Your task to perform on an android device: Open CNN.com Image 0: 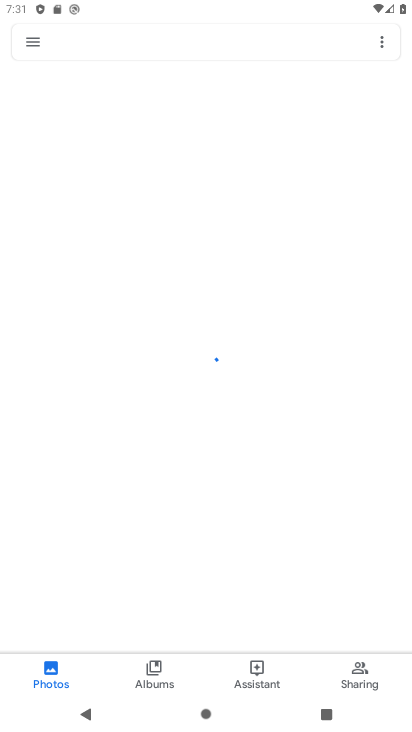
Step 0: press home button
Your task to perform on an android device: Open CNN.com Image 1: 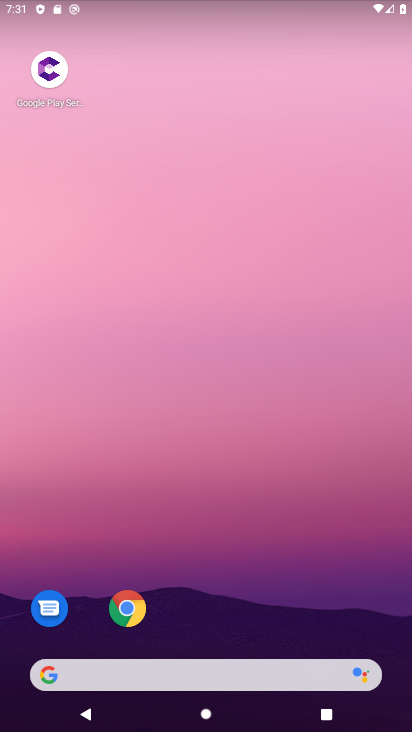
Step 1: click (125, 618)
Your task to perform on an android device: Open CNN.com Image 2: 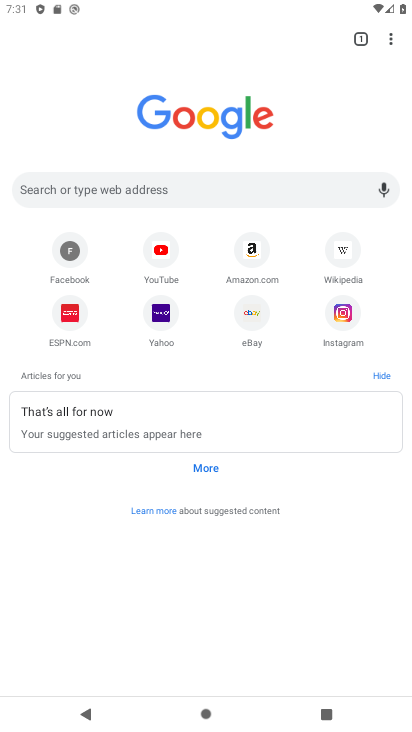
Step 2: click (125, 184)
Your task to perform on an android device: Open CNN.com Image 3: 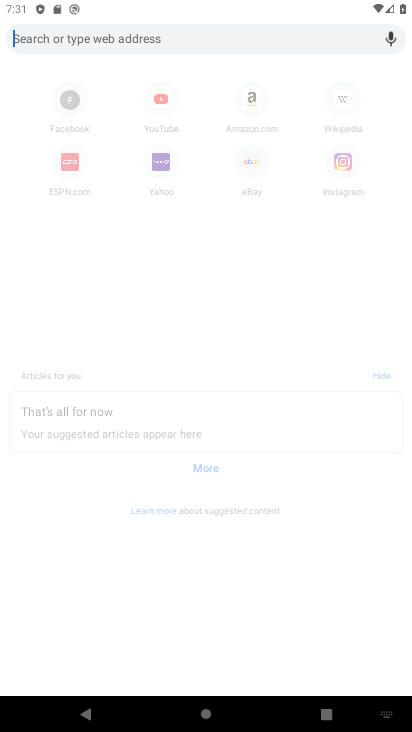
Step 3: type "cnn.com"
Your task to perform on an android device: Open CNN.com Image 4: 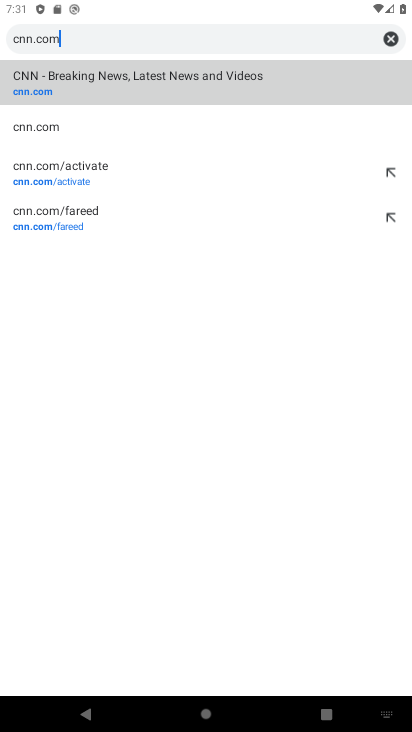
Step 4: click (97, 75)
Your task to perform on an android device: Open CNN.com Image 5: 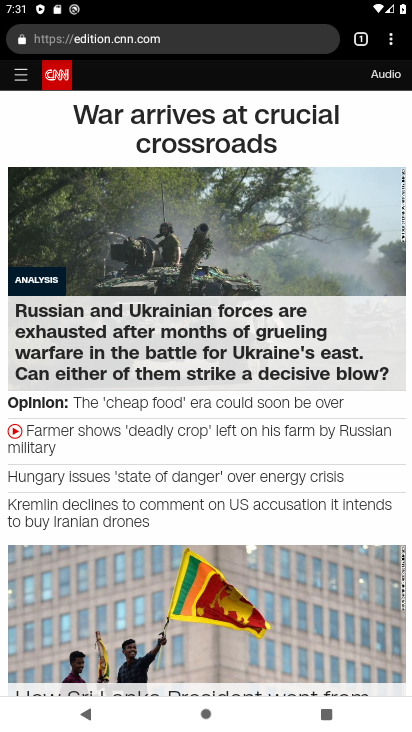
Step 5: task complete